Your task to perform on an android device: Search for vegetarian restaurants on Maps Image 0: 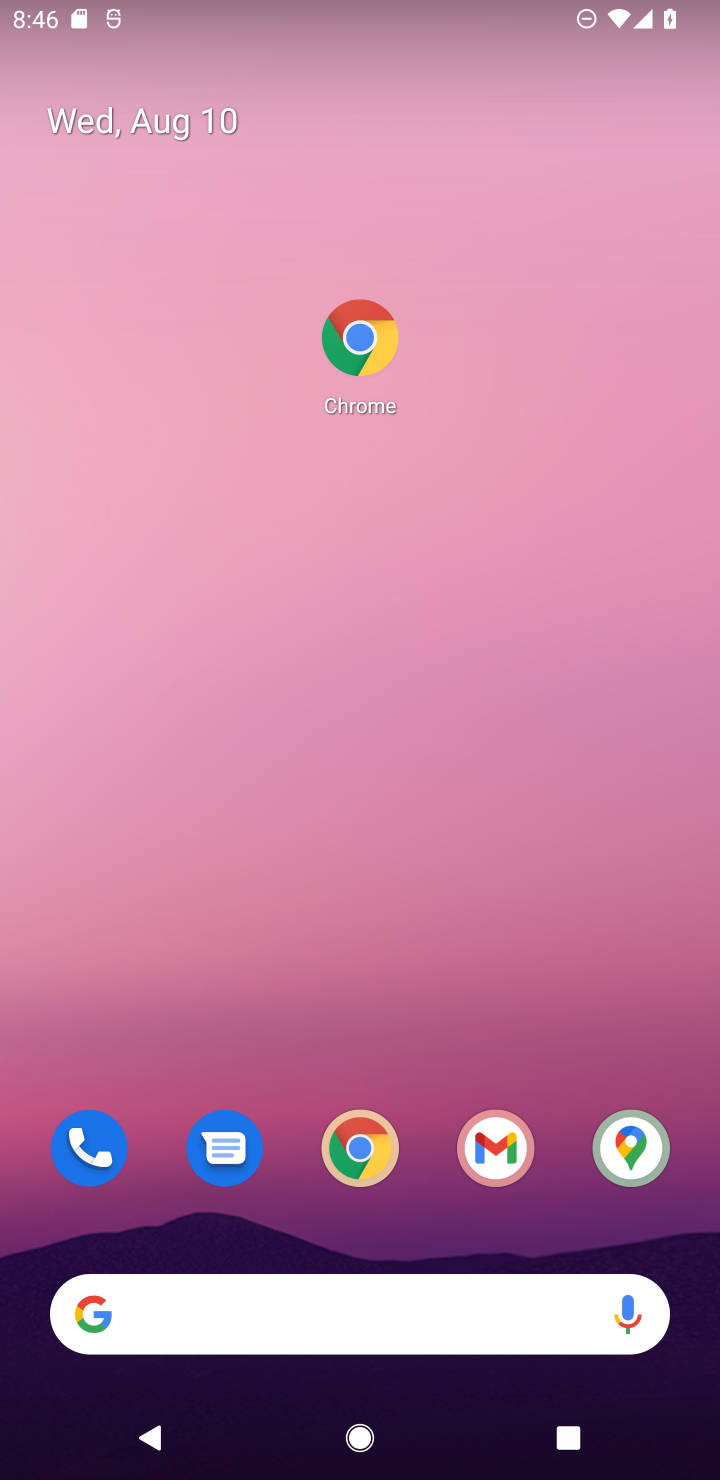
Step 0: click (594, 1149)
Your task to perform on an android device: Search for vegetarian restaurants on Maps Image 1: 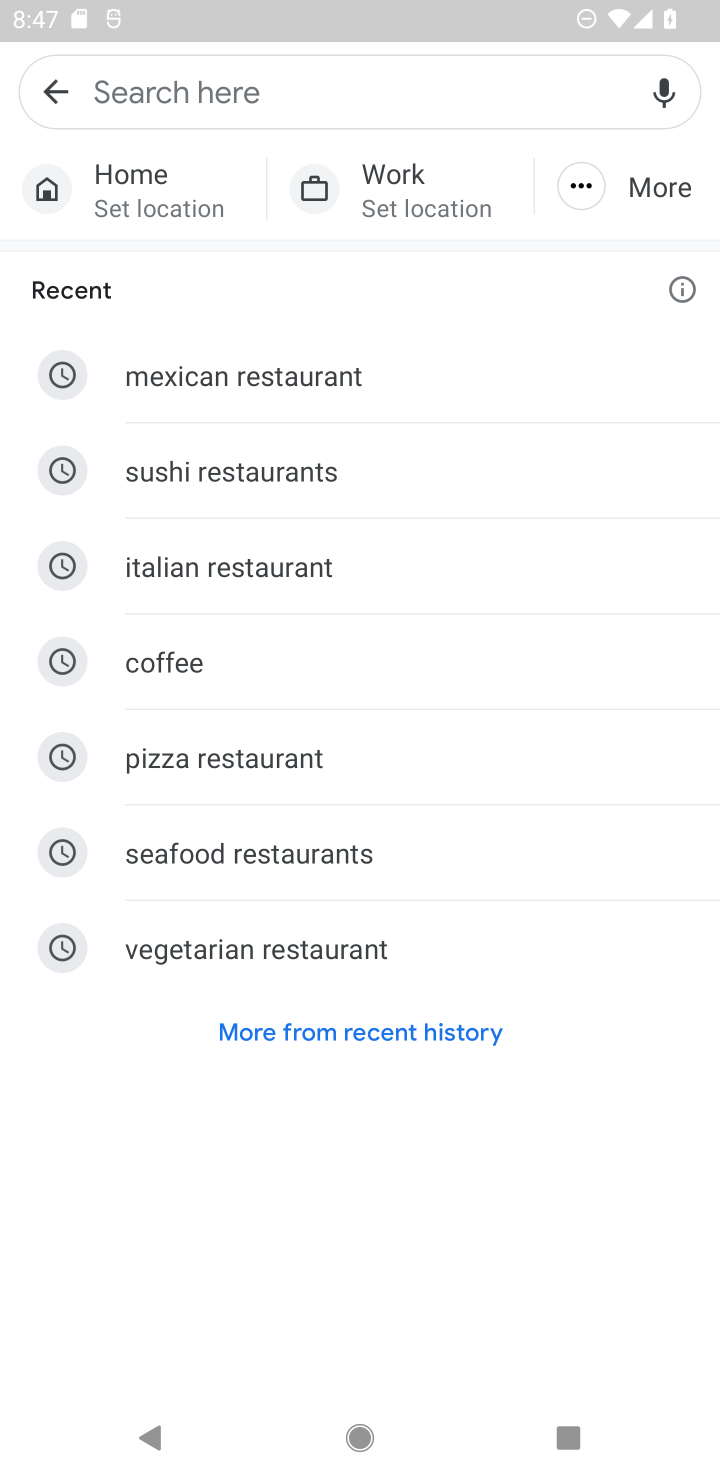
Step 1: click (266, 932)
Your task to perform on an android device: Search for vegetarian restaurants on Maps Image 2: 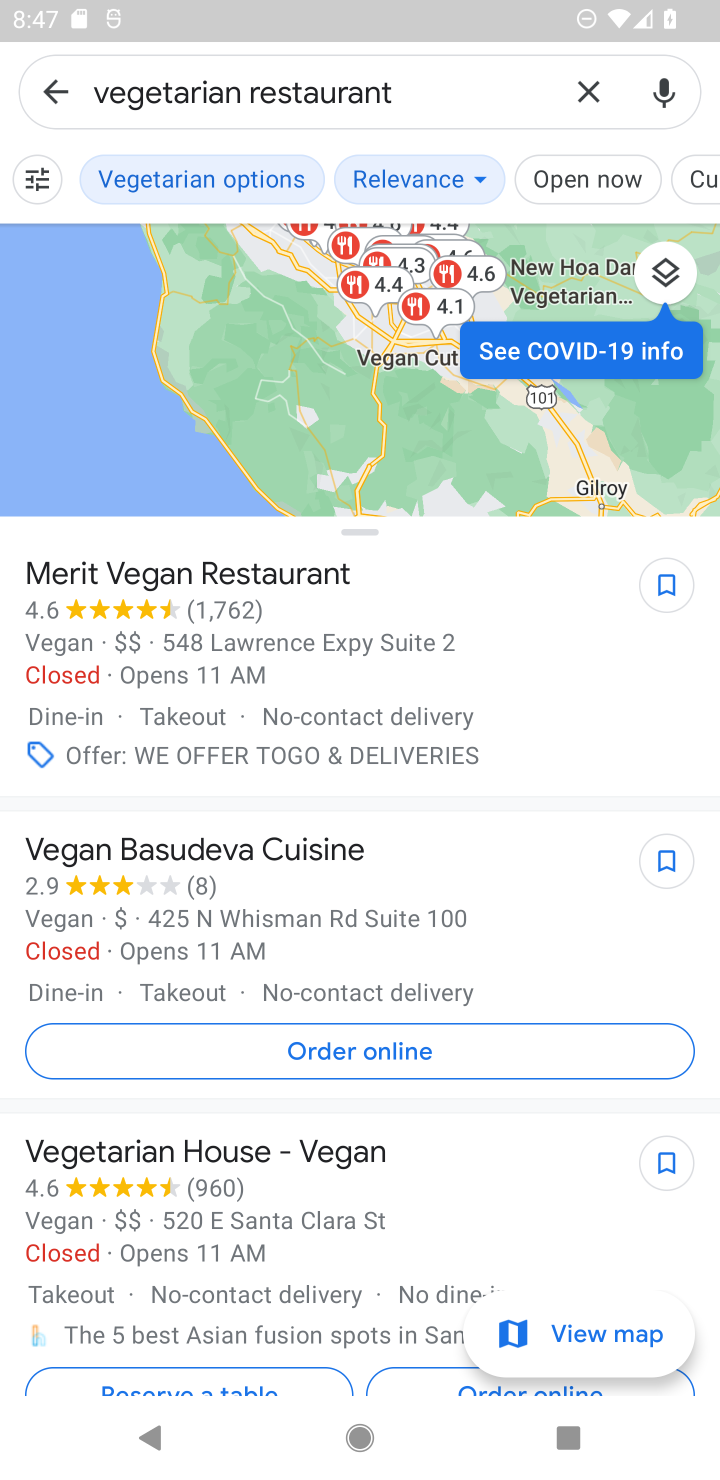
Step 2: task complete